Your task to perform on an android device: turn on notifications settings in the gmail app Image 0: 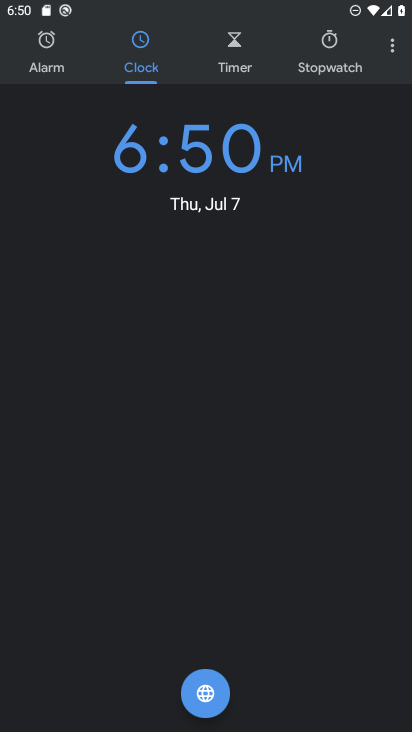
Step 0: press home button
Your task to perform on an android device: turn on notifications settings in the gmail app Image 1: 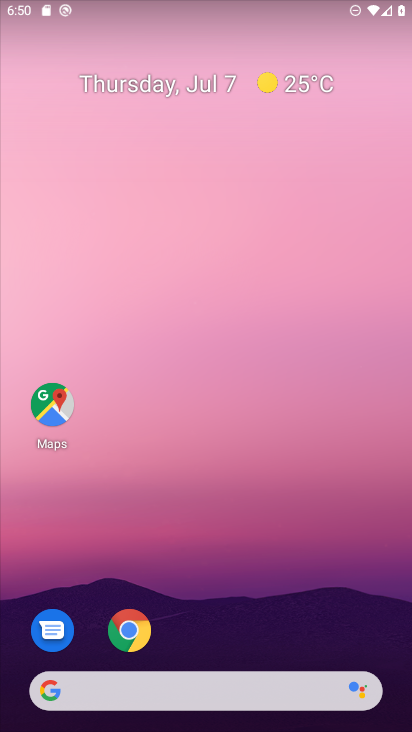
Step 1: drag from (220, 558) to (170, 59)
Your task to perform on an android device: turn on notifications settings in the gmail app Image 2: 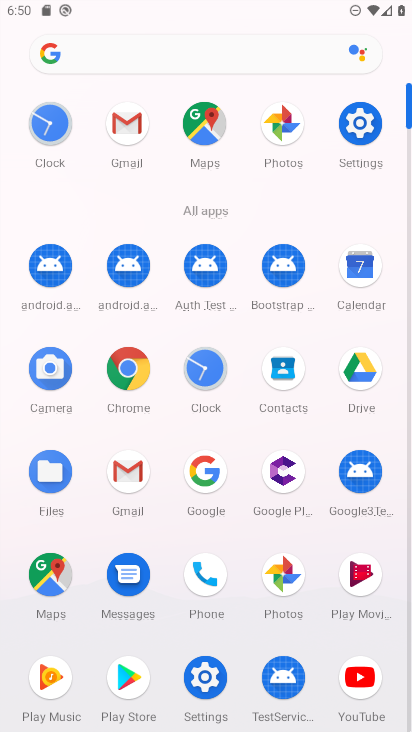
Step 2: click (125, 127)
Your task to perform on an android device: turn on notifications settings in the gmail app Image 3: 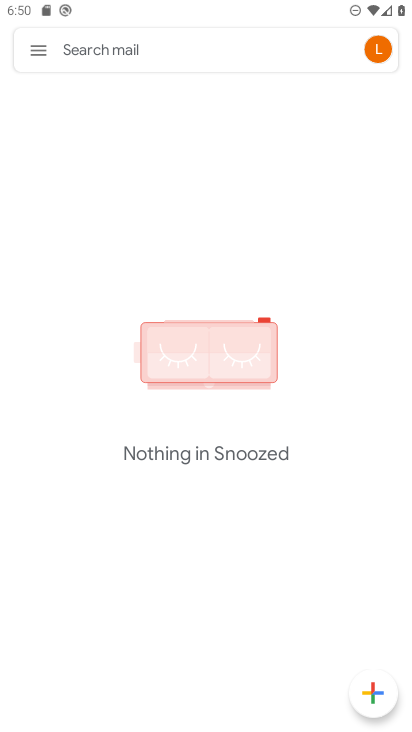
Step 3: click (34, 42)
Your task to perform on an android device: turn on notifications settings in the gmail app Image 4: 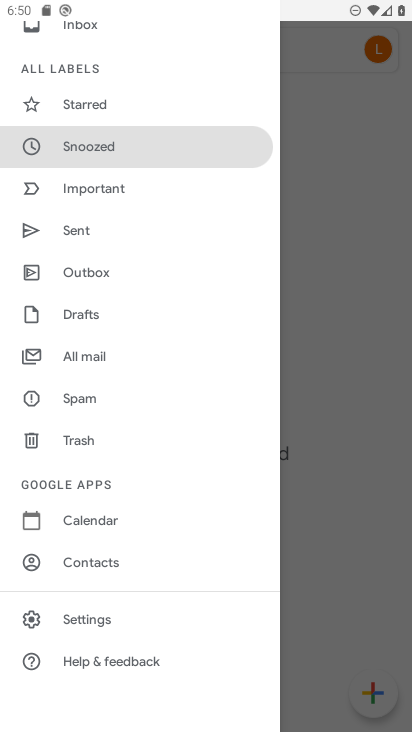
Step 4: click (94, 620)
Your task to perform on an android device: turn on notifications settings in the gmail app Image 5: 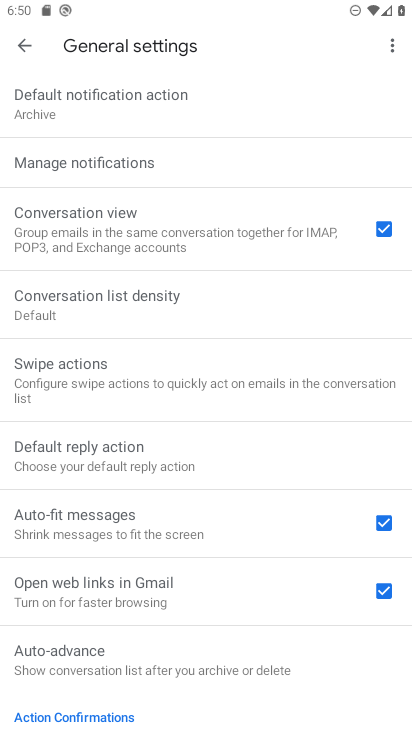
Step 5: click (122, 159)
Your task to perform on an android device: turn on notifications settings in the gmail app Image 6: 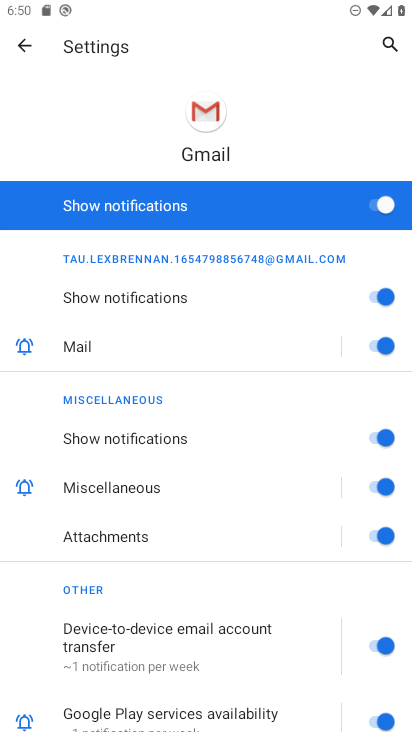
Step 6: task complete